Your task to perform on an android device: turn off notifications settings in the gmail app Image 0: 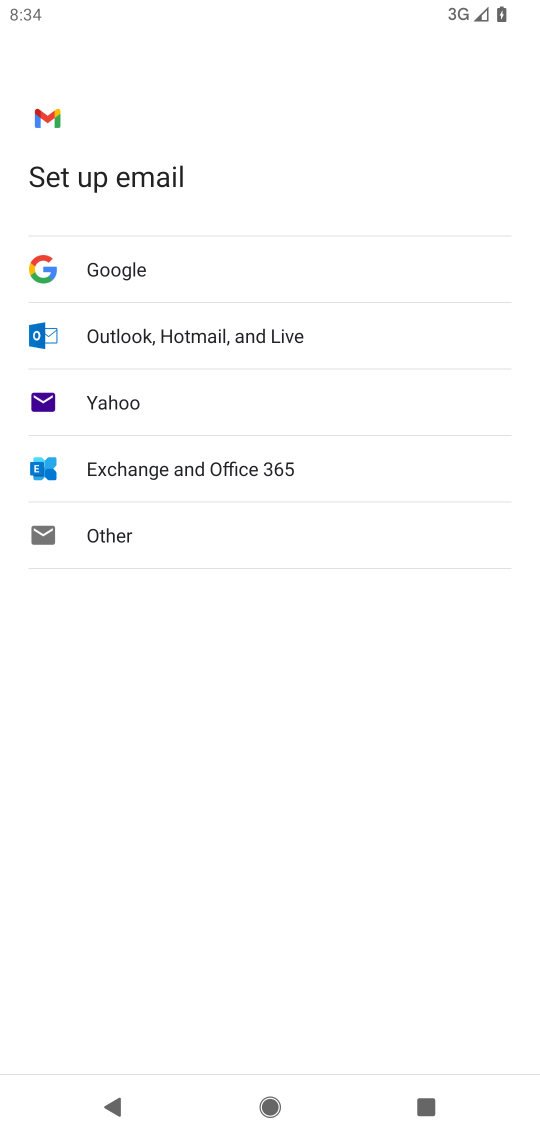
Step 0: press home button
Your task to perform on an android device: turn off notifications settings in the gmail app Image 1: 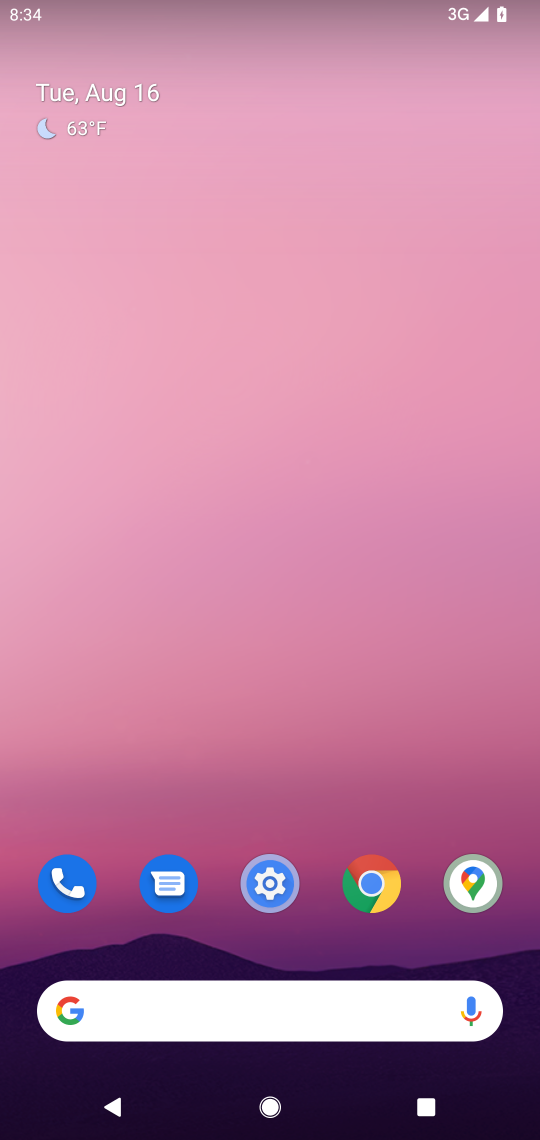
Step 1: drag from (405, 769) to (336, 264)
Your task to perform on an android device: turn off notifications settings in the gmail app Image 2: 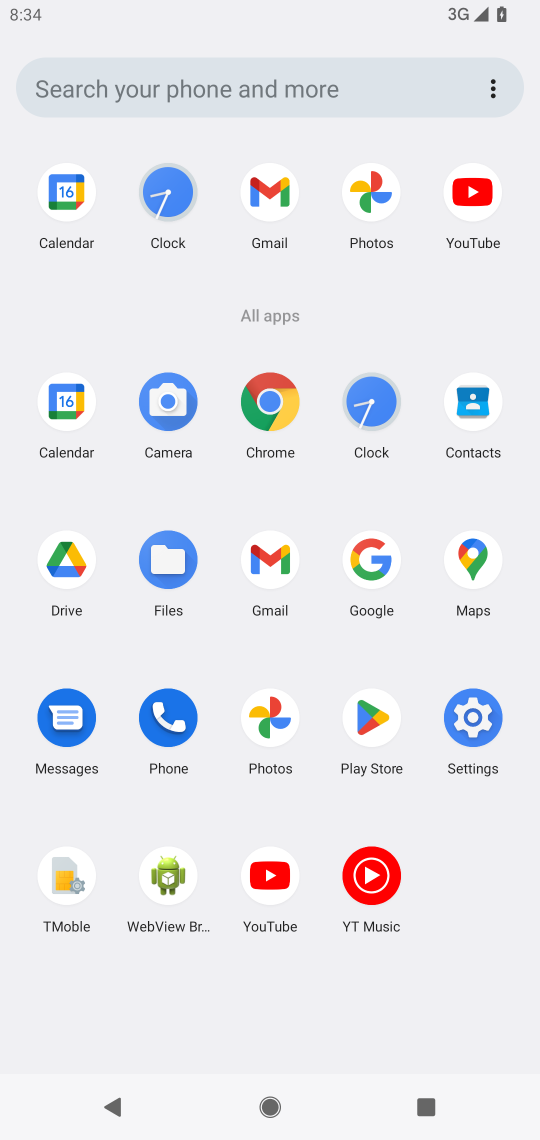
Step 2: click (255, 558)
Your task to perform on an android device: turn off notifications settings in the gmail app Image 3: 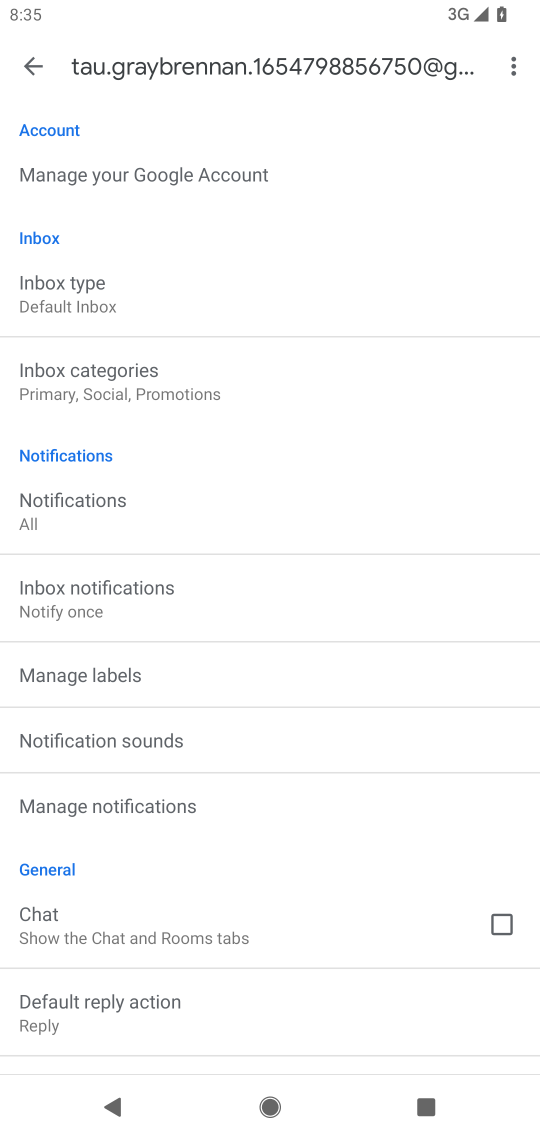
Step 3: click (264, 813)
Your task to perform on an android device: turn off notifications settings in the gmail app Image 4: 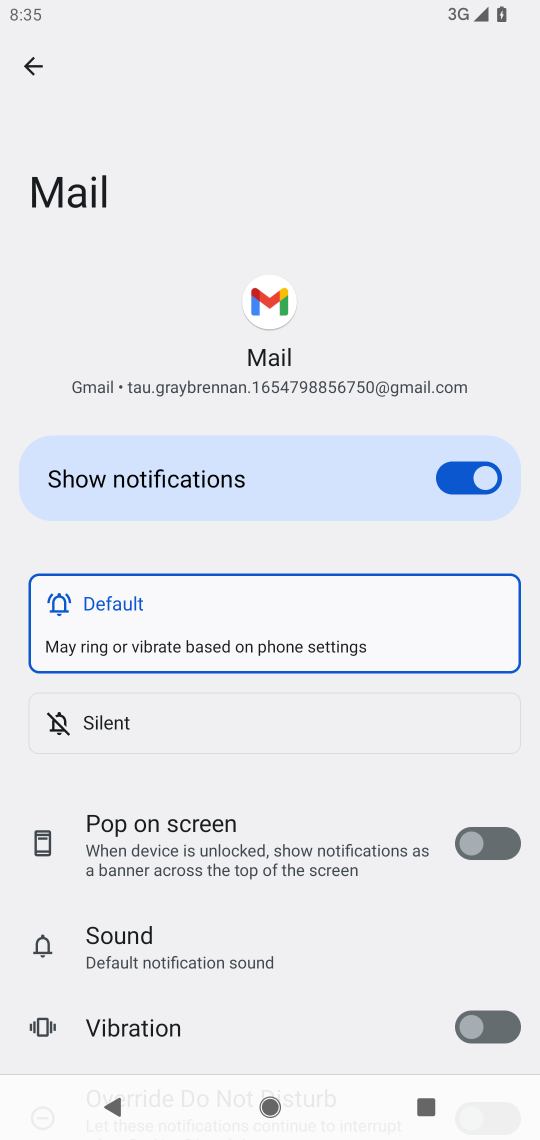
Step 4: click (470, 493)
Your task to perform on an android device: turn off notifications settings in the gmail app Image 5: 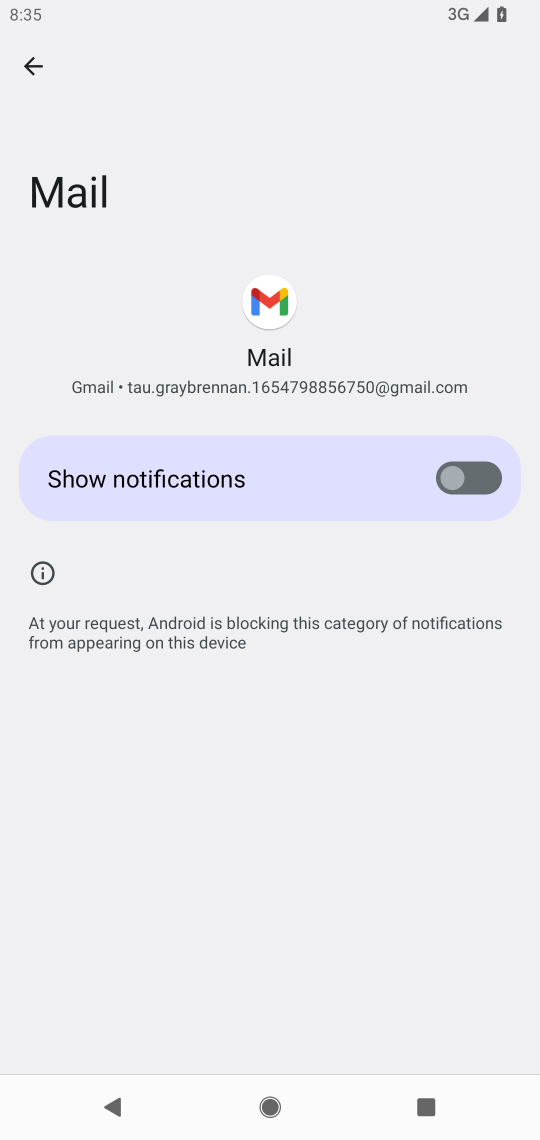
Step 5: task complete